Your task to perform on an android device: see sites visited before in the chrome app Image 0: 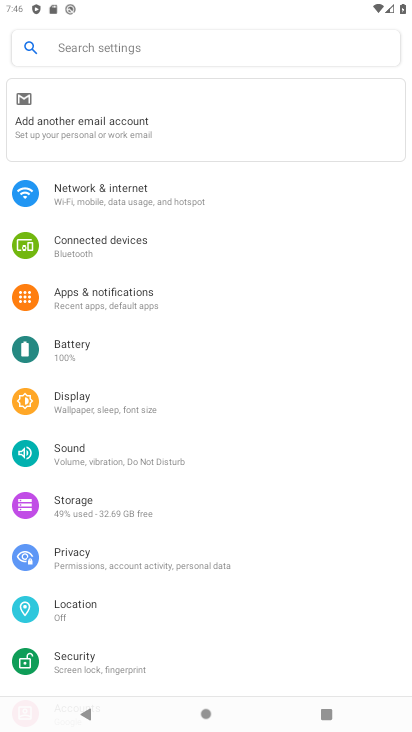
Step 0: press home button
Your task to perform on an android device: see sites visited before in the chrome app Image 1: 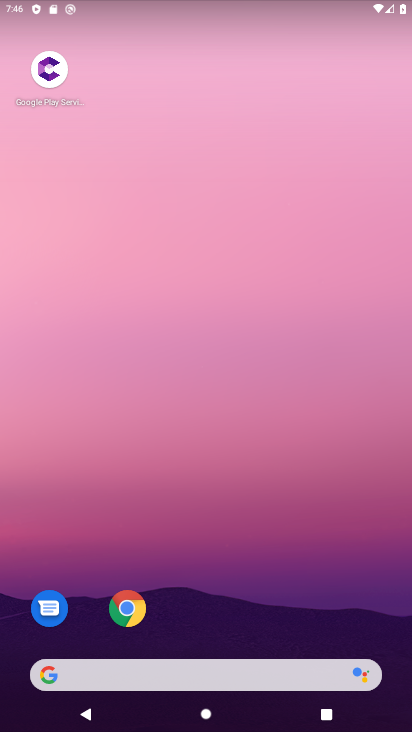
Step 1: click (129, 621)
Your task to perform on an android device: see sites visited before in the chrome app Image 2: 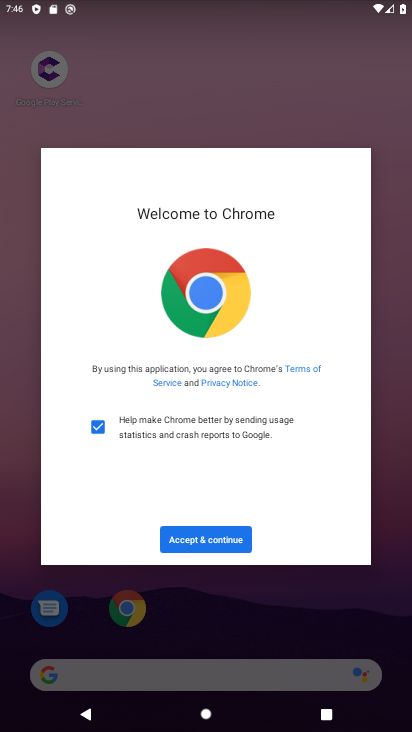
Step 2: click (211, 537)
Your task to perform on an android device: see sites visited before in the chrome app Image 3: 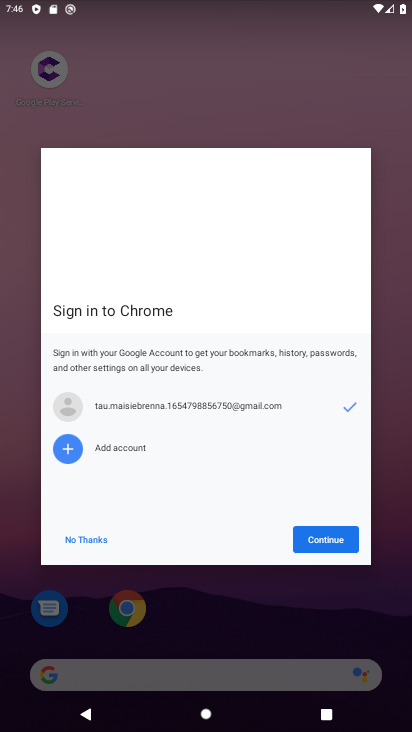
Step 3: click (337, 539)
Your task to perform on an android device: see sites visited before in the chrome app Image 4: 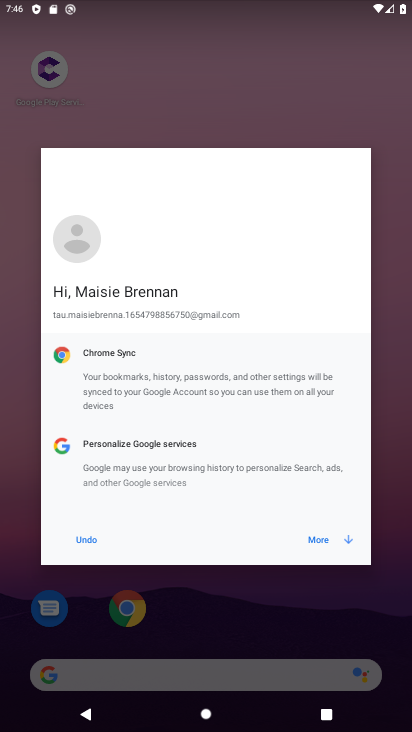
Step 4: click (320, 537)
Your task to perform on an android device: see sites visited before in the chrome app Image 5: 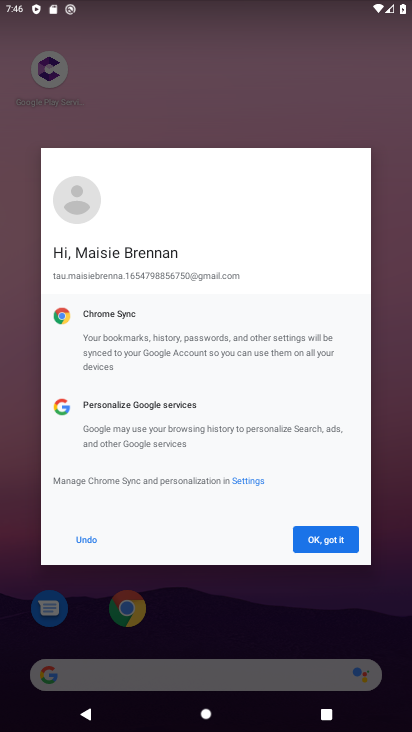
Step 5: click (334, 532)
Your task to perform on an android device: see sites visited before in the chrome app Image 6: 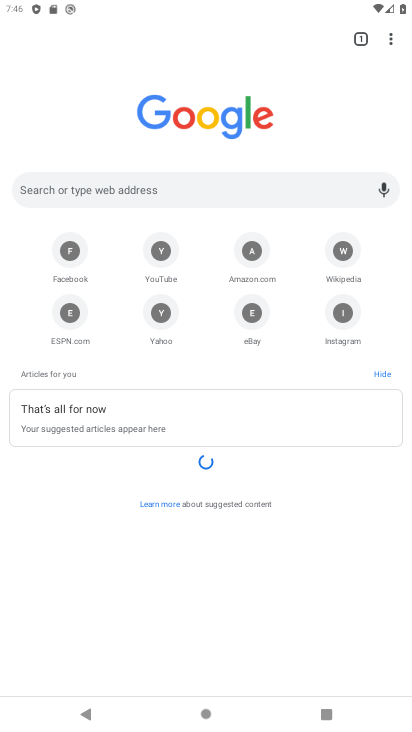
Step 6: click (391, 38)
Your task to perform on an android device: see sites visited before in the chrome app Image 7: 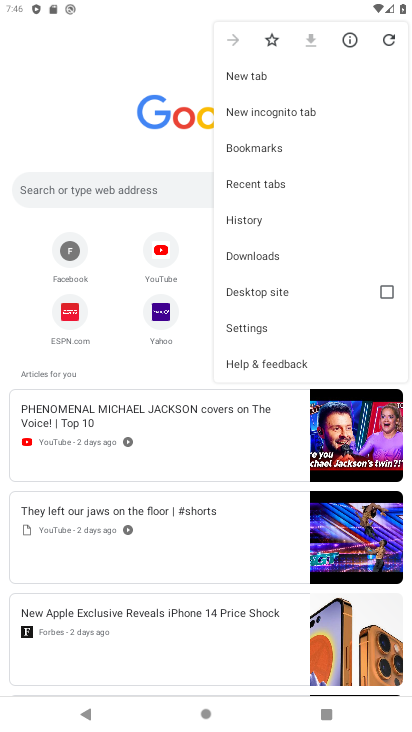
Step 7: click (265, 322)
Your task to perform on an android device: see sites visited before in the chrome app Image 8: 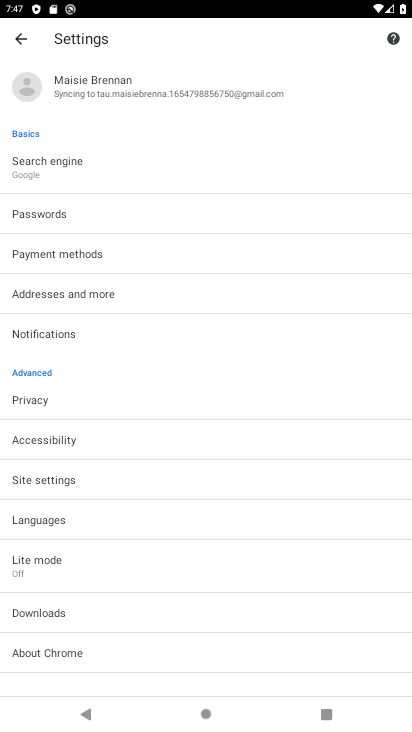
Step 8: click (49, 480)
Your task to perform on an android device: see sites visited before in the chrome app Image 9: 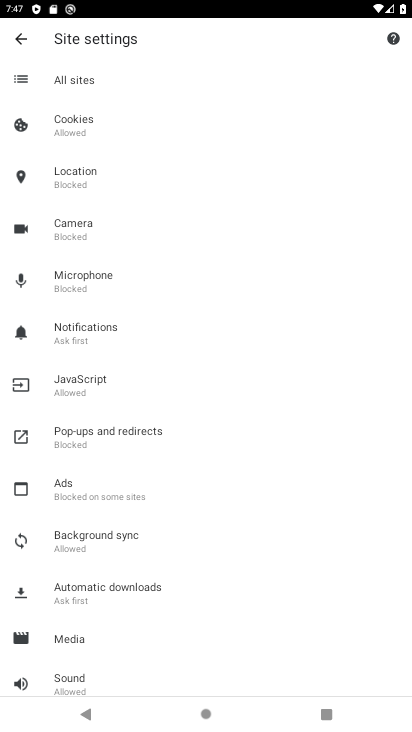
Step 9: task complete